Your task to perform on an android device: check out phone information Image 0: 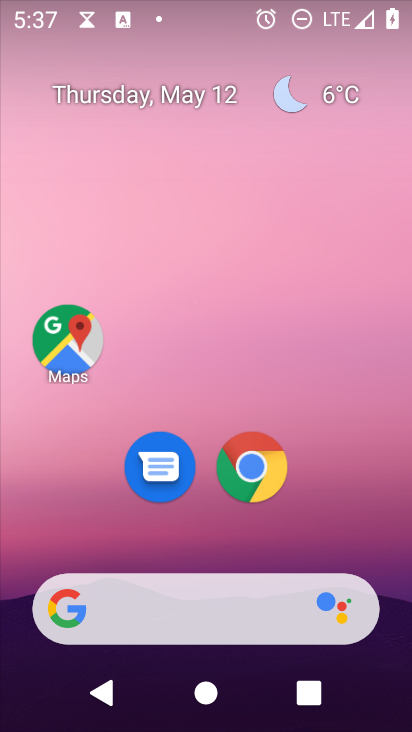
Step 0: drag from (180, 617) to (261, 33)
Your task to perform on an android device: check out phone information Image 1: 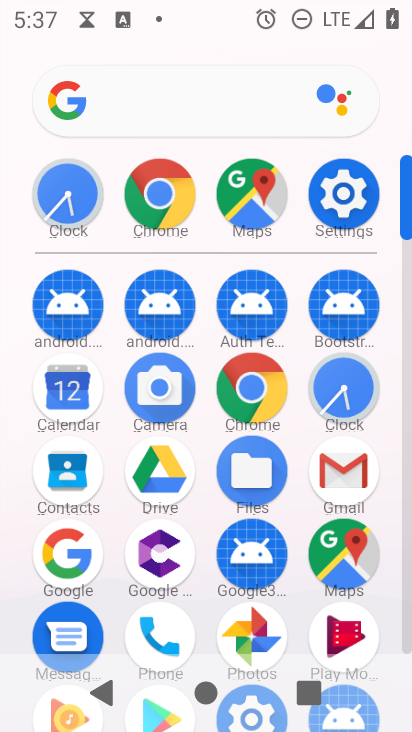
Step 1: drag from (293, 683) to (308, 157)
Your task to perform on an android device: check out phone information Image 2: 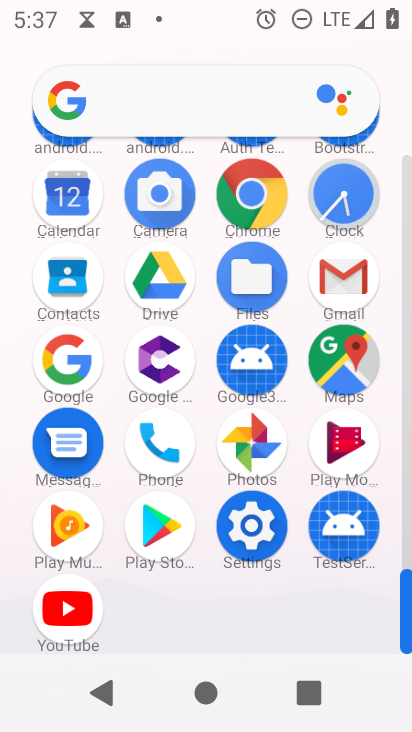
Step 2: click (256, 532)
Your task to perform on an android device: check out phone information Image 3: 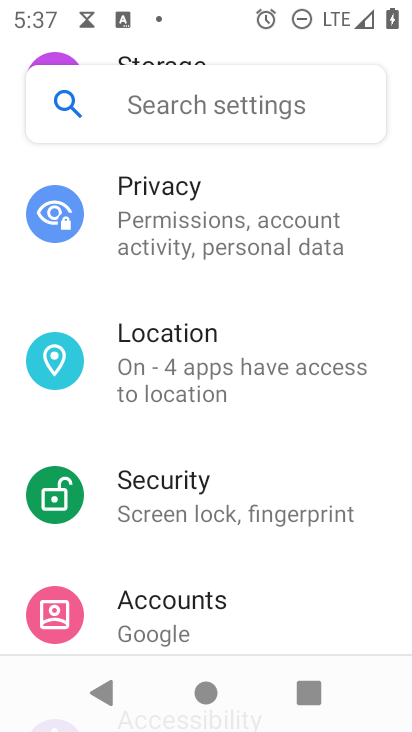
Step 3: drag from (291, 624) to (367, 148)
Your task to perform on an android device: check out phone information Image 4: 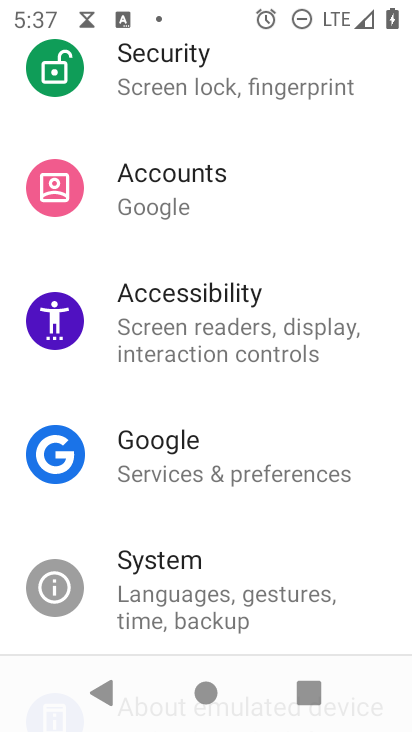
Step 4: drag from (270, 608) to (311, 165)
Your task to perform on an android device: check out phone information Image 5: 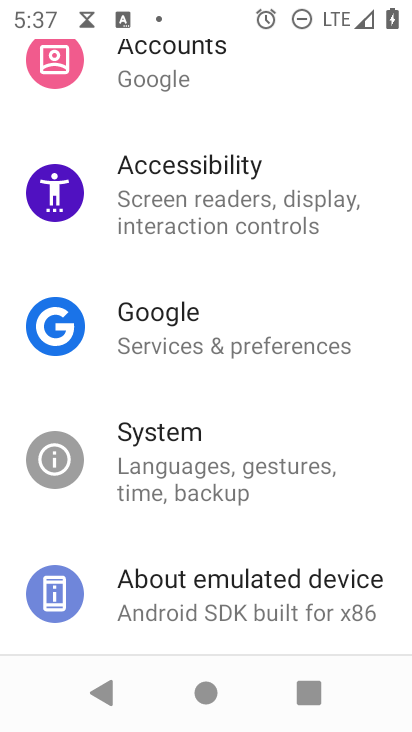
Step 5: click (234, 588)
Your task to perform on an android device: check out phone information Image 6: 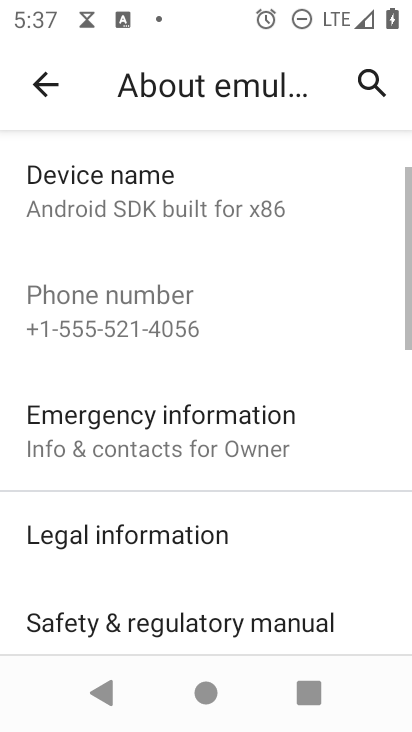
Step 6: task complete